Your task to perform on an android device: stop showing notifications on the lock screen Image 0: 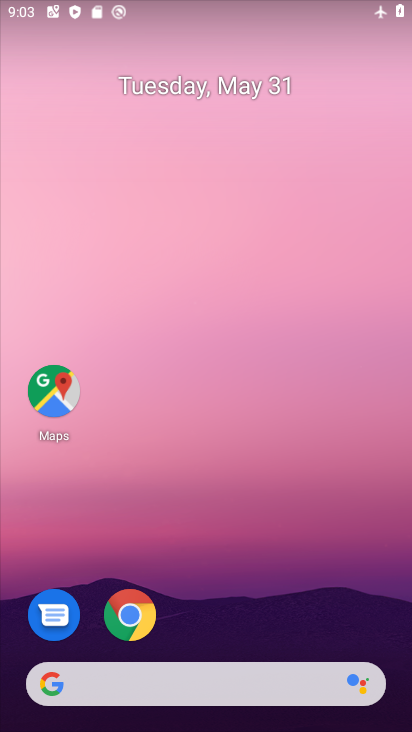
Step 0: drag from (368, 623) to (299, 26)
Your task to perform on an android device: stop showing notifications on the lock screen Image 1: 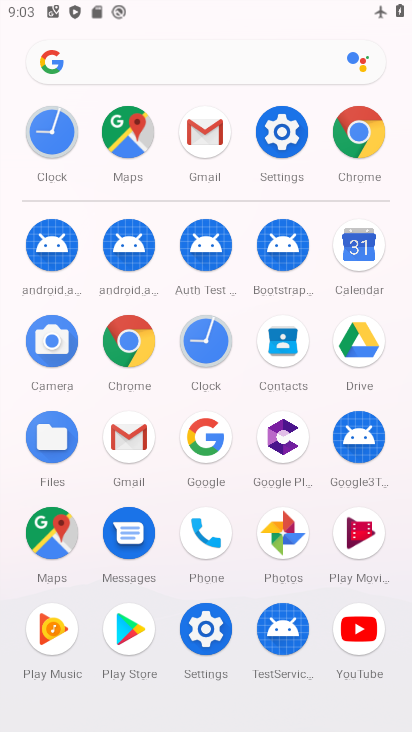
Step 1: click (207, 630)
Your task to perform on an android device: stop showing notifications on the lock screen Image 2: 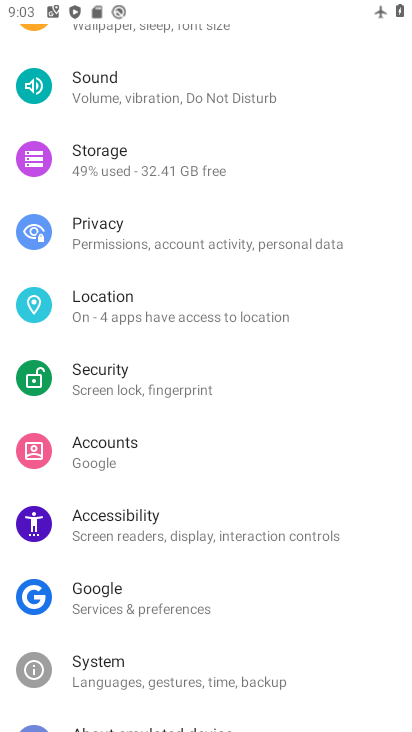
Step 2: drag from (320, 353) to (327, 619)
Your task to perform on an android device: stop showing notifications on the lock screen Image 3: 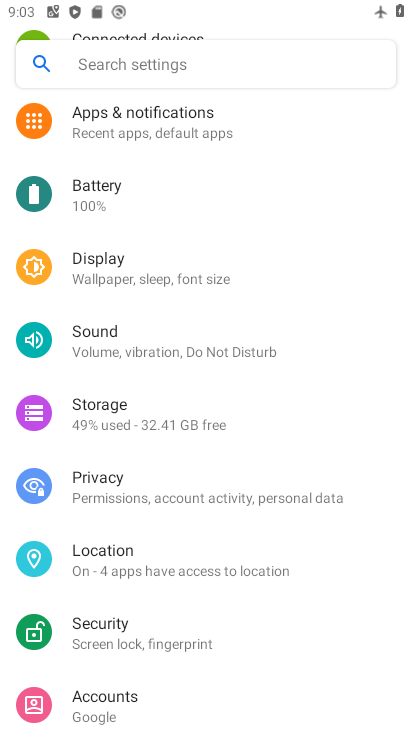
Step 3: drag from (306, 253) to (300, 474)
Your task to perform on an android device: stop showing notifications on the lock screen Image 4: 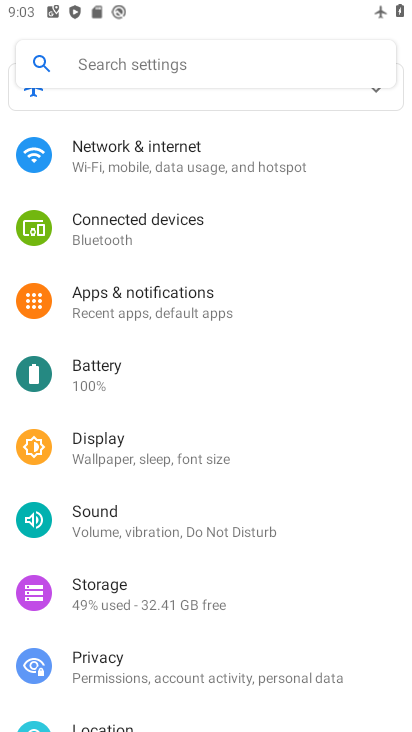
Step 4: click (112, 282)
Your task to perform on an android device: stop showing notifications on the lock screen Image 5: 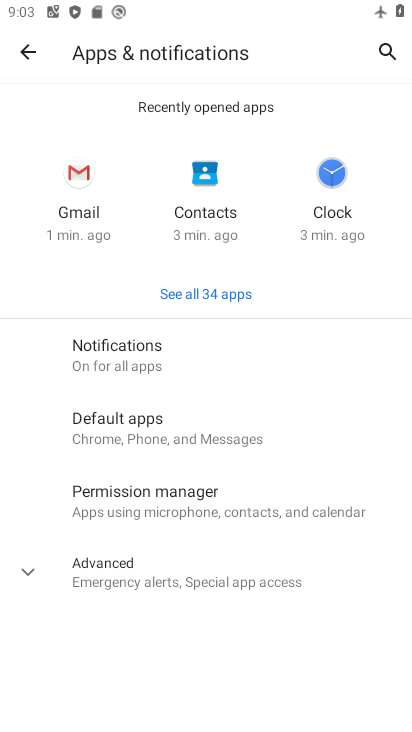
Step 5: click (120, 355)
Your task to perform on an android device: stop showing notifications on the lock screen Image 6: 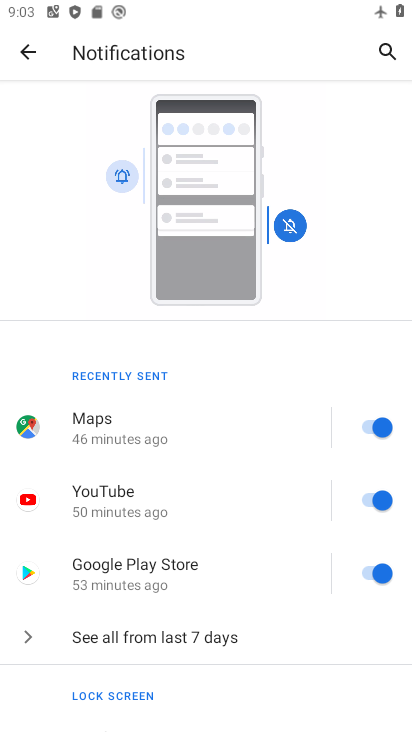
Step 6: drag from (236, 579) to (231, 336)
Your task to perform on an android device: stop showing notifications on the lock screen Image 7: 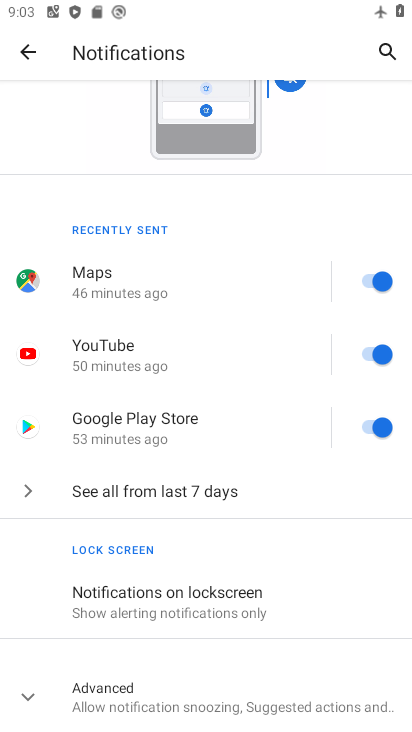
Step 7: drag from (251, 619) to (234, 299)
Your task to perform on an android device: stop showing notifications on the lock screen Image 8: 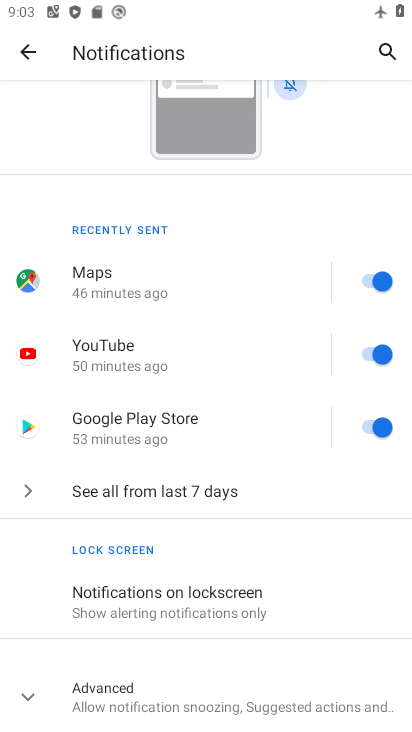
Step 8: click (144, 600)
Your task to perform on an android device: stop showing notifications on the lock screen Image 9: 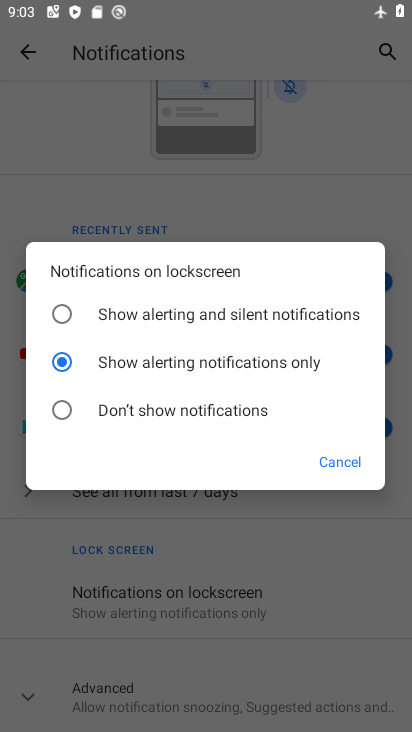
Step 9: click (61, 406)
Your task to perform on an android device: stop showing notifications on the lock screen Image 10: 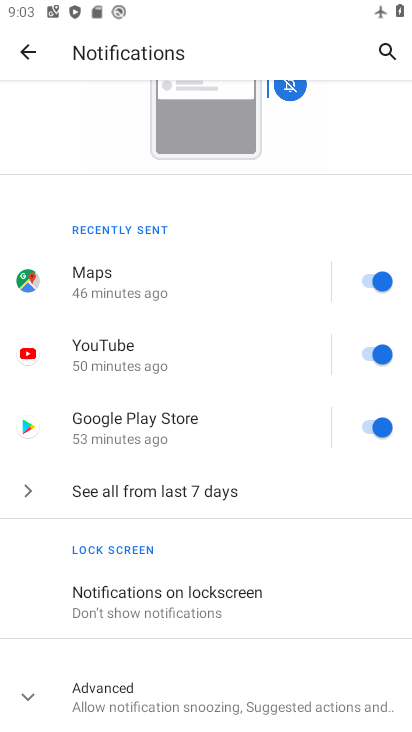
Step 10: task complete